Your task to perform on an android device: Open settings on Google Maps Image 0: 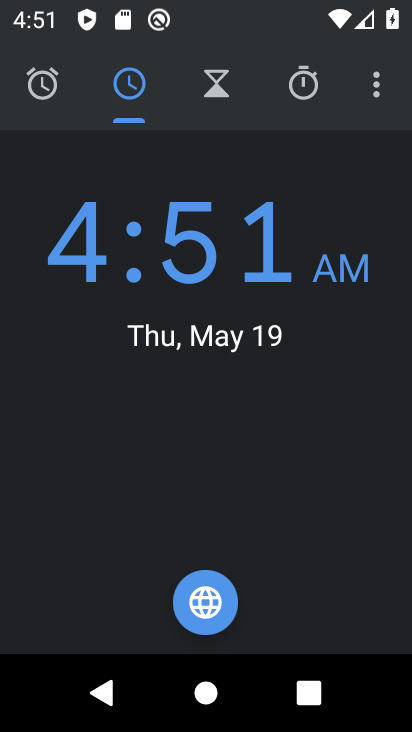
Step 0: press home button
Your task to perform on an android device: Open settings on Google Maps Image 1: 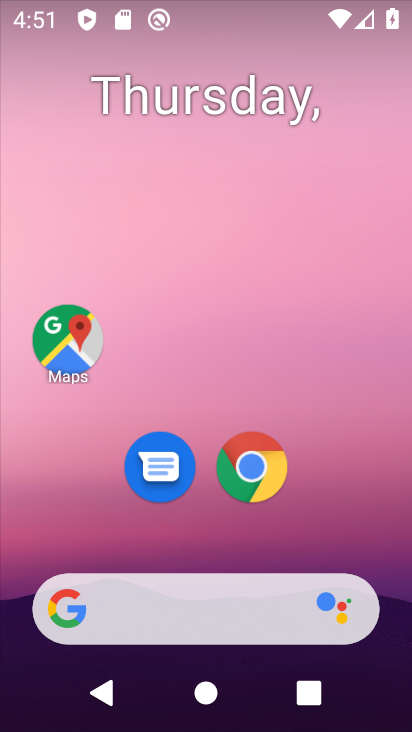
Step 1: click (91, 344)
Your task to perform on an android device: Open settings on Google Maps Image 2: 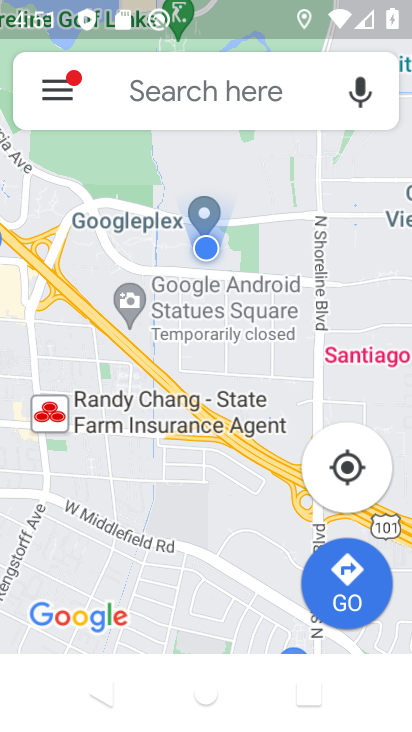
Step 2: click (66, 68)
Your task to perform on an android device: Open settings on Google Maps Image 3: 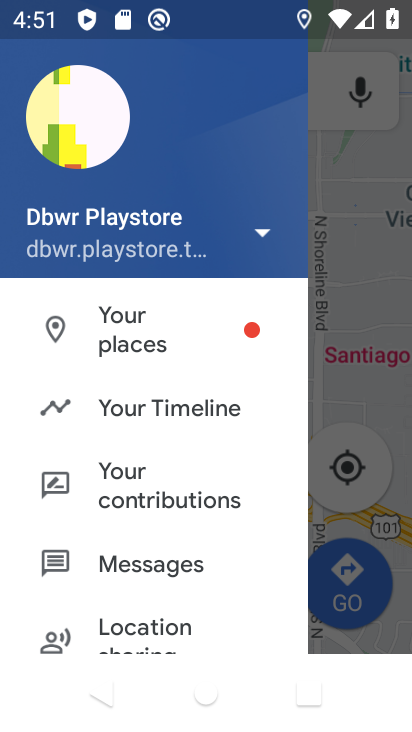
Step 3: drag from (165, 643) to (181, 236)
Your task to perform on an android device: Open settings on Google Maps Image 4: 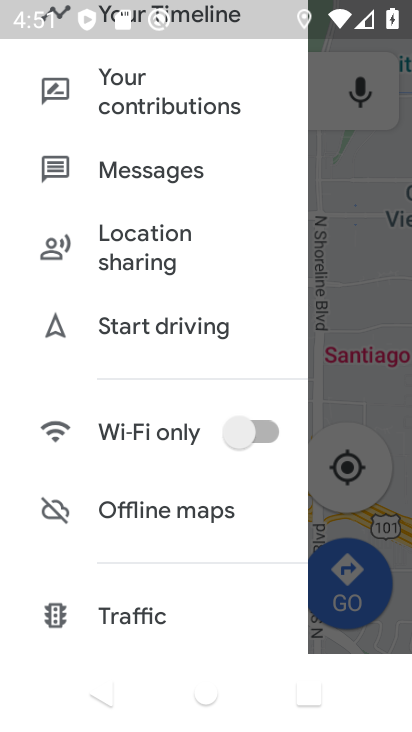
Step 4: drag from (150, 578) to (171, 91)
Your task to perform on an android device: Open settings on Google Maps Image 5: 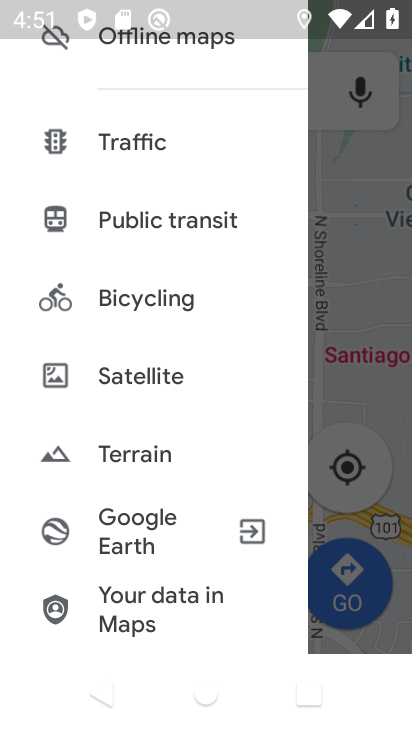
Step 5: drag from (174, 557) to (183, 69)
Your task to perform on an android device: Open settings on Google Maps Image 6: 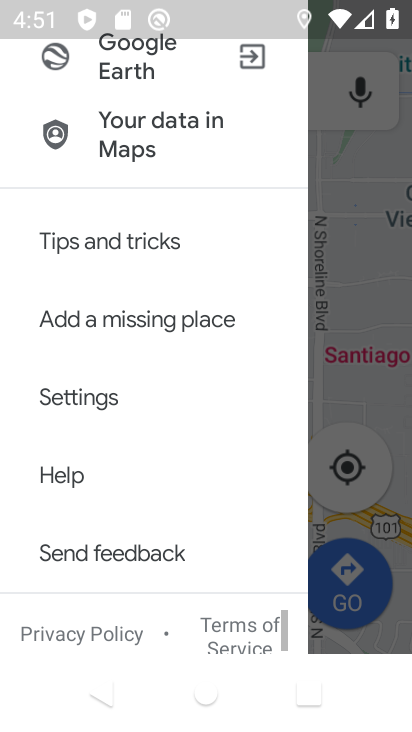
Step 6: click (145, 402)
Your task to perform on an android device: Open settings on Google Maps Image 7: 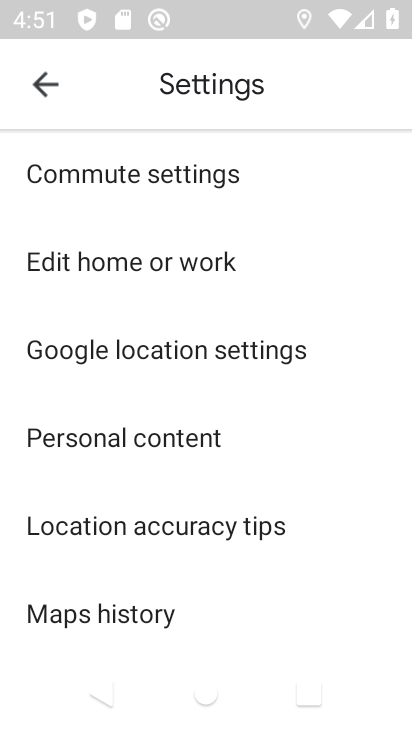
Step 7: task complete